Your task to perform on an android device: set an alarm Image 0: 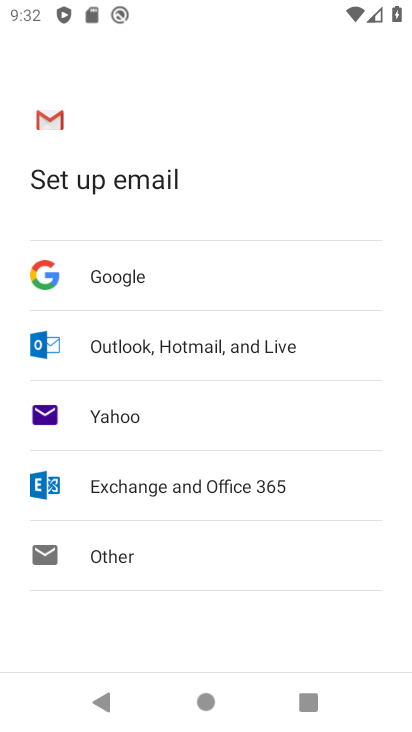
Step 0: press home button
Your task to perform on an android device: set an alarm Image 1: 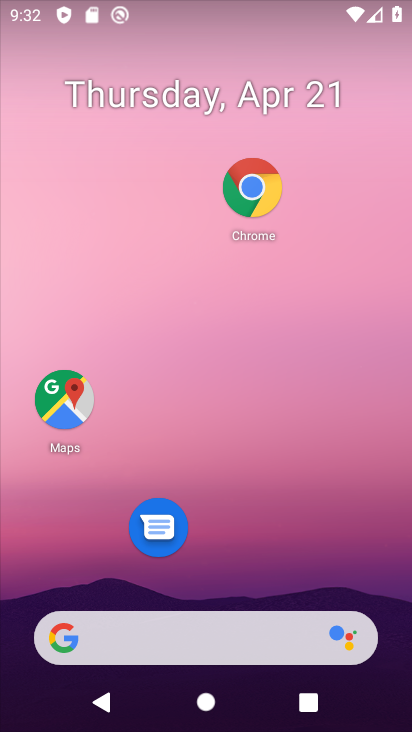
Step 1: drag from (340, 554) to (368, 163)
Your task to perform on an android device: set an alarm Image 2: 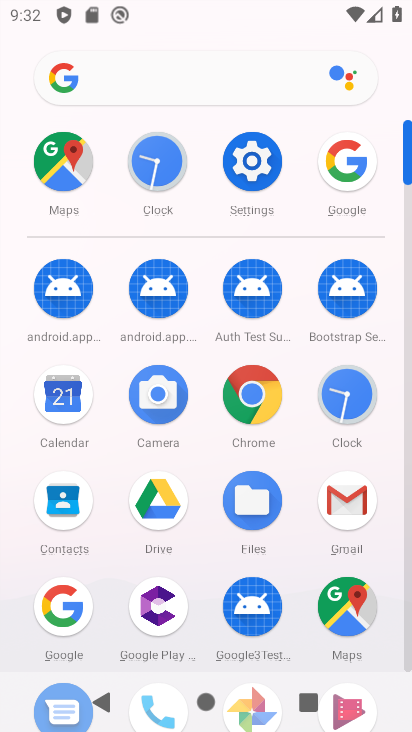
Step 2: click (343, 400)
Your task to perform on an android device: set an alarm Image 3: 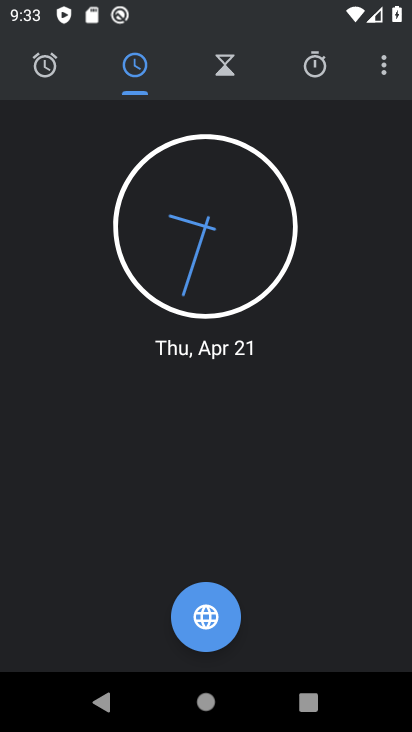
Step 3: click (63, 63)
Your task to perform on an android device: set an alarm Image 4: 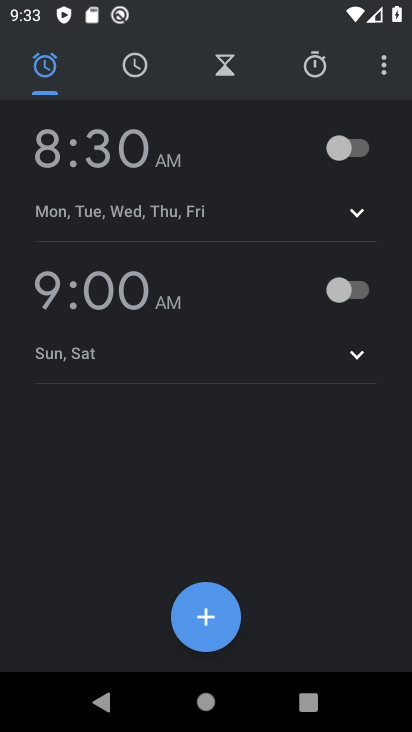
Step 4: click (206, 614)
Your task to perform on an android device: set an alarm Image 5: 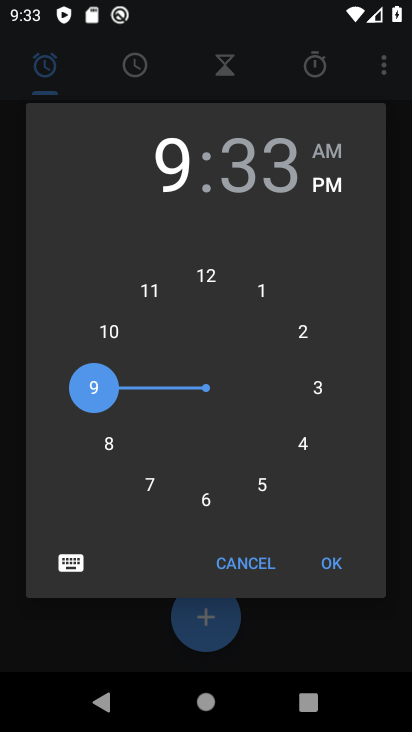
Step 5: click (325, 571)
Your task to perform on an android device: set an alarm Image 6: 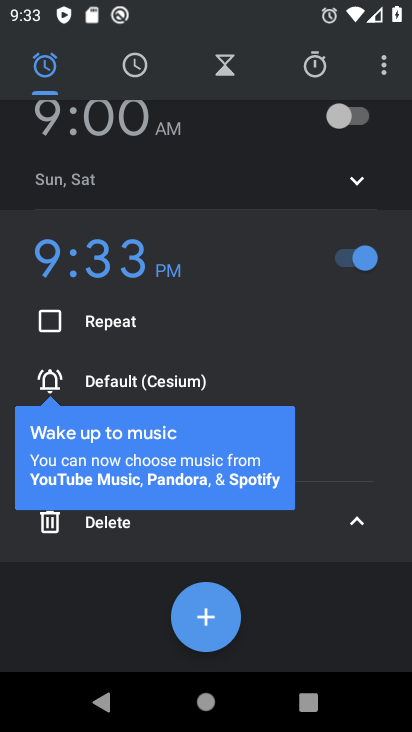
Step 6: task complete